Your task to perform on an android device: Go to location settings Image 0: 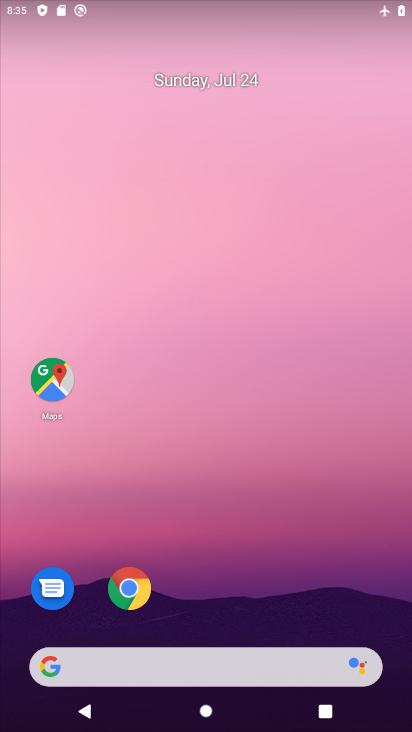
Step 0: drag from (280, 640) to (185, 229)
Your task to perform on an android device: Go to location settings Image 1: 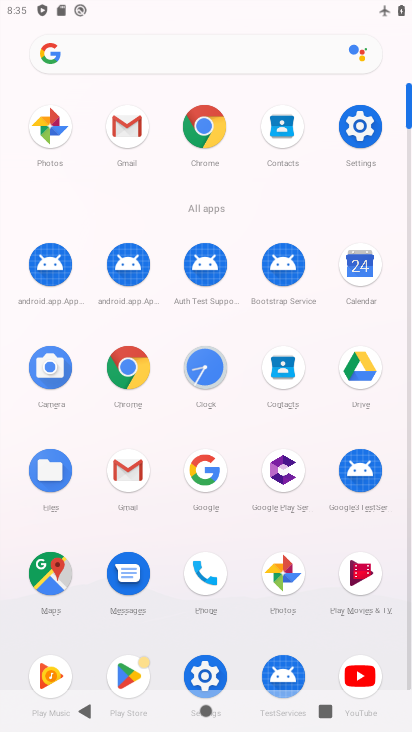
Step 1: click (346, 109)
Your task to perform on an android device: Go to location settings Image 2: 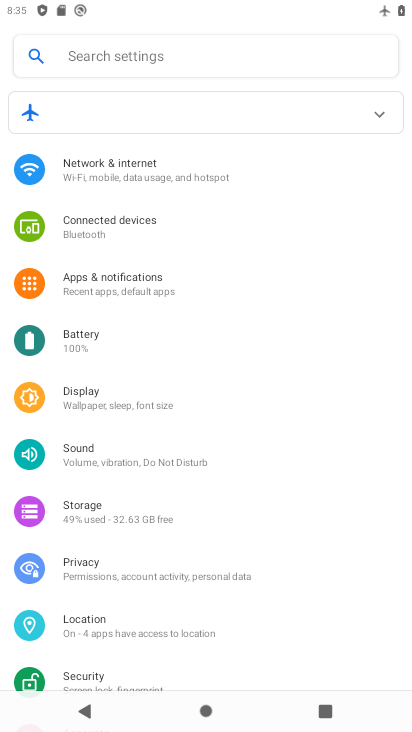
Step 2: click (132, 619)
Your task to perform on an android device: Go to location settings Image 3: 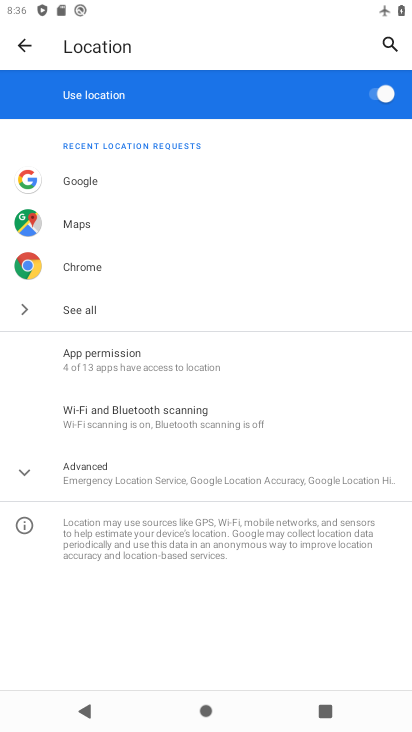
Step 3: task complete